Your task to perform on an android device: empty trash in the gmail app Image 0: 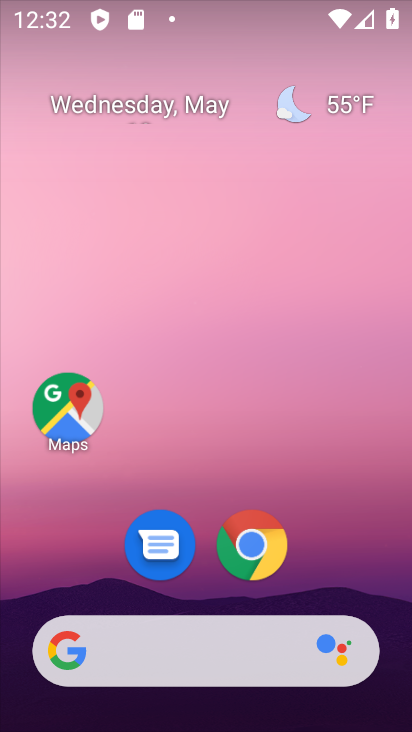
Step 0: drag from (344, 568) to (301, 63)
Your task to perform on an android device: empty trash in the gmail app Image 1: 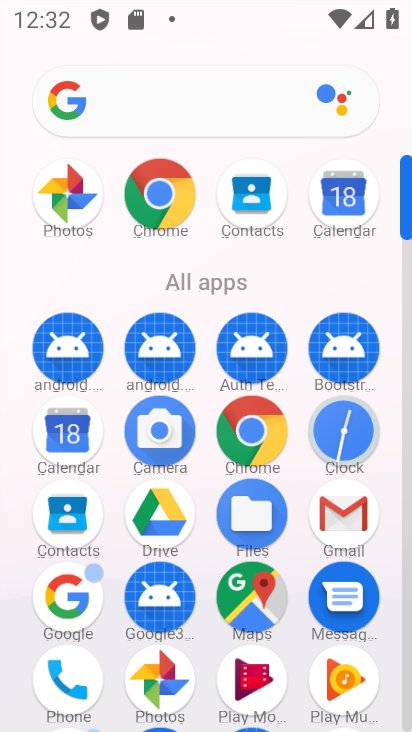
Step 1: click (334, 521)
Your task to perform on an android device: empty trash in the gmail app Image 2: 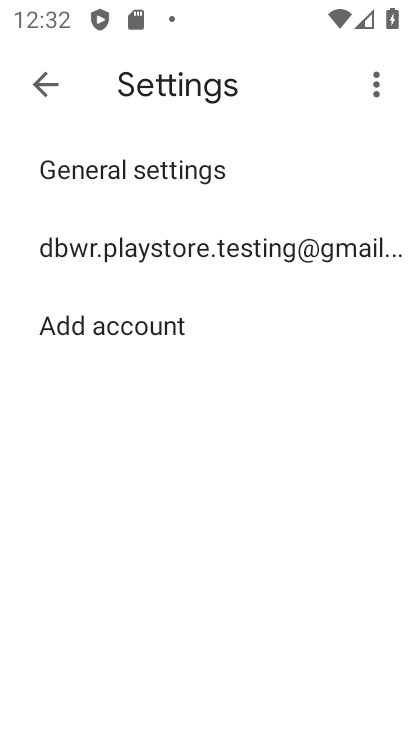
Step 2: click (53, 90)
Your task to perform on an android device: empty trash in the gmail app Image 3: 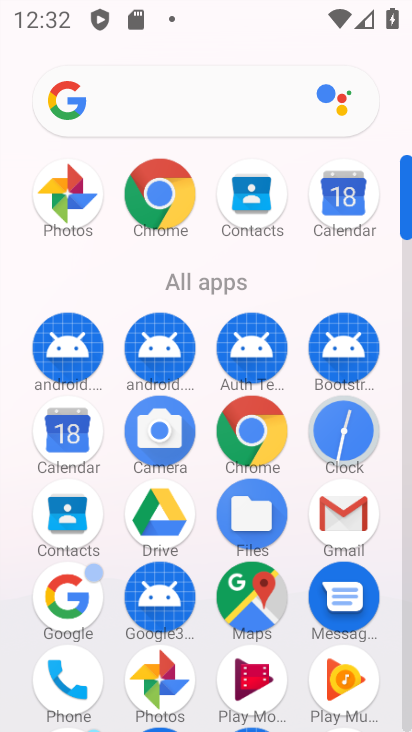
Step 3: click (333, 523)
Your task to perform on an android device: empty trash in the gmail app Image 4: 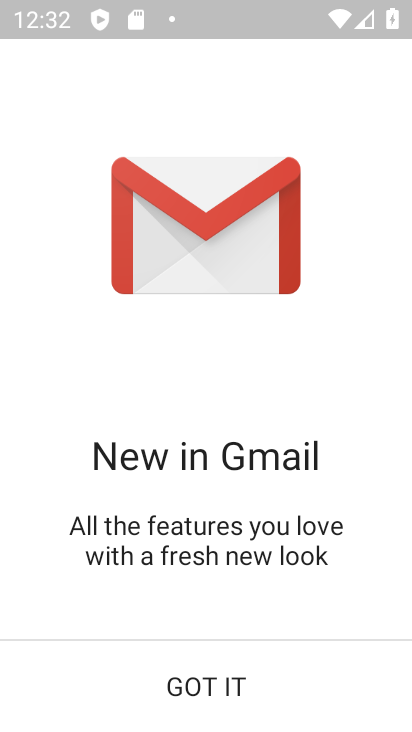
Step 4: click (234, 664)
Your task to perform on an android device: empty trash in the gmail app Image 5: 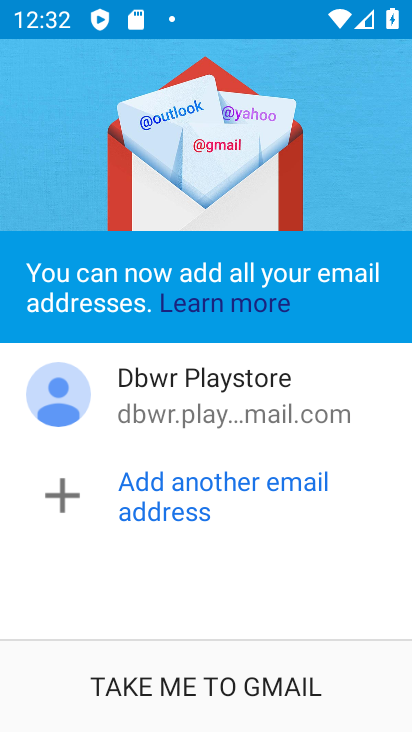
Step 5: click (170, 673)
Your task to perform on an android device: empty trash in the gmail app Image 6: 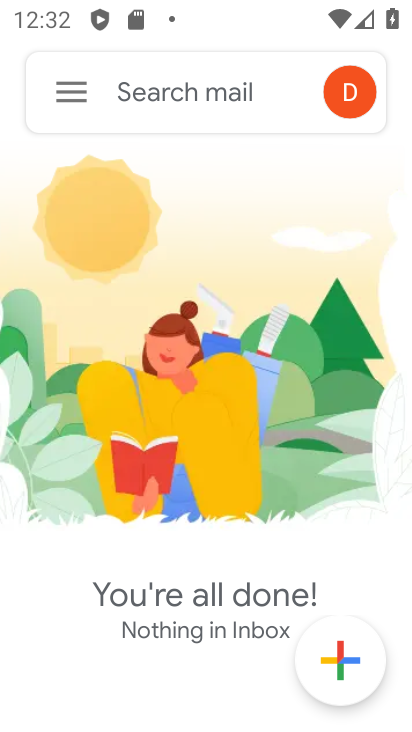
Step 6: click (75, 79)
Your task to perform on an android device: empty trash in the gmail app Image 7: 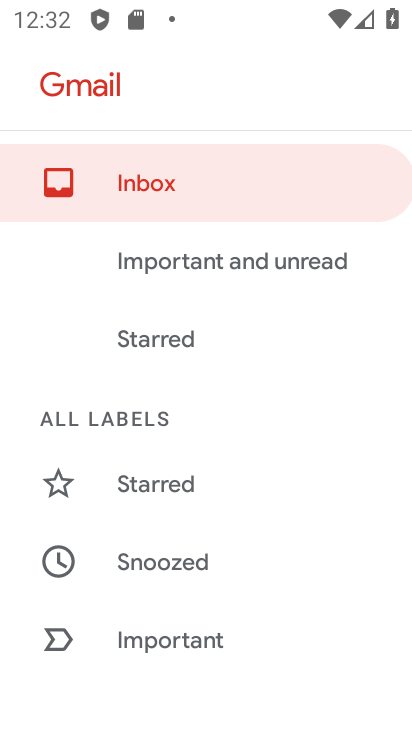
Step 7: drag from (215, 508) to (207, 233)
Your task to perform on an android device: empty trash in the gmail app Image 8: 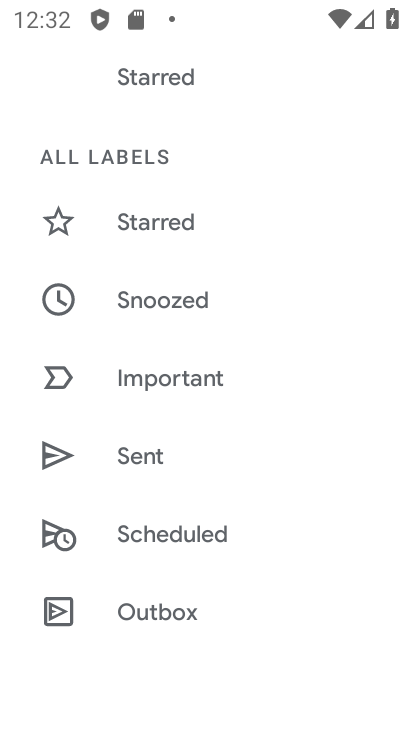
Step 8: drag from (141, 585) to (159, 196)
Your task to perform on an android device: empty trash in the gmail app Image 9: 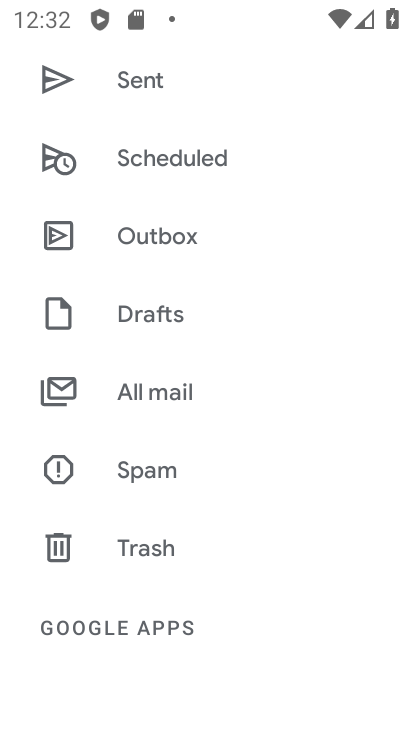
Step 9: click (182, 536)
Your task to perform on an android device: empty trash in the gmail app Image 10: 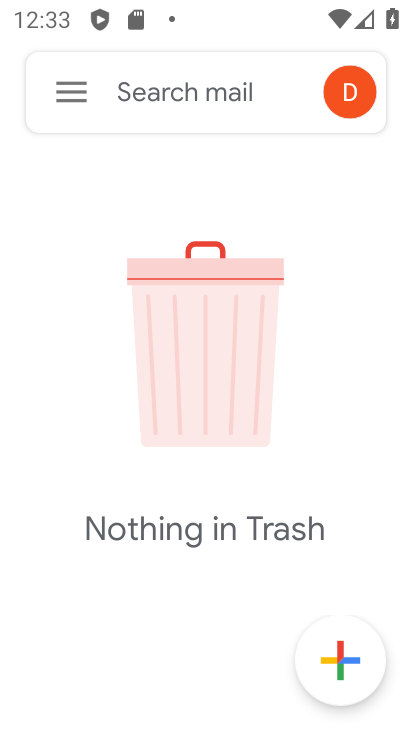
Step 10: task complete